Your task to perform on an android device: Open sound settings Image 0: 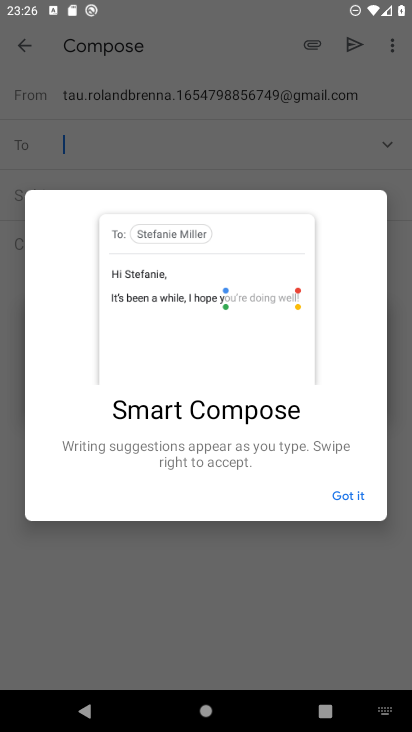
Step 0: press home button
Your task to perform on an android device: Open sound settings Image 1: 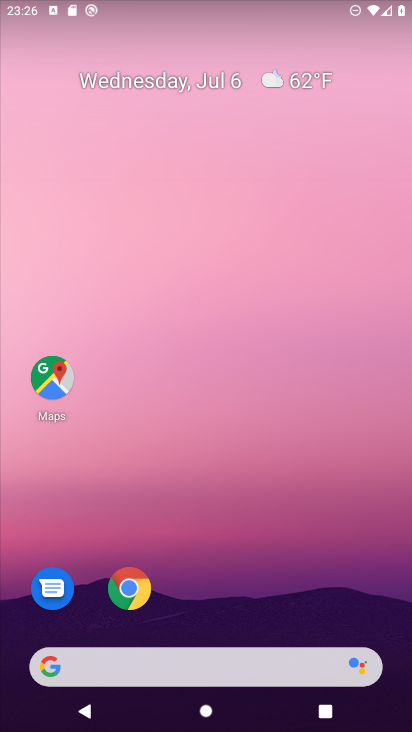
Step 1: drag from (370, 613) to (295, 198)
Your task to perform on an android device: Open sound settings Image 2: 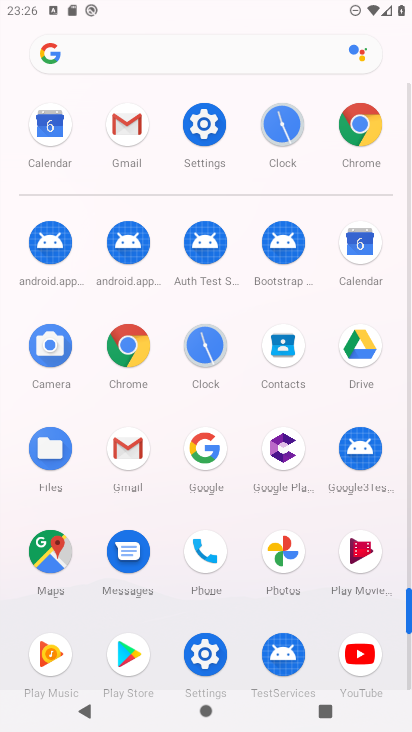
Step 2: click (203, 651)
Your task to perform on an android device: Open sound settings Image 3: 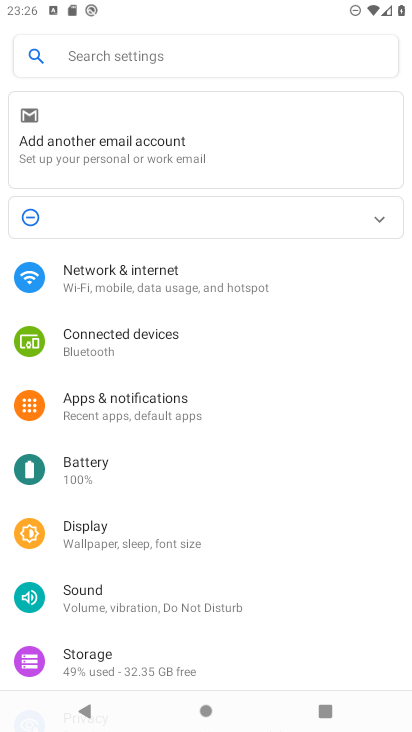
Step 3: click (100, 602)
Your task to perform on an android device: Open sound settings Image 4: 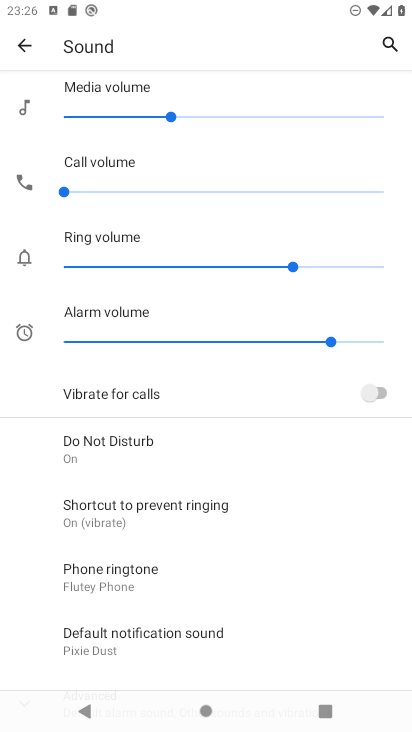
Step 4: drag from (270, 553) to (257, 228)
Your task to perform on an android device: Open sound settings Image 5: 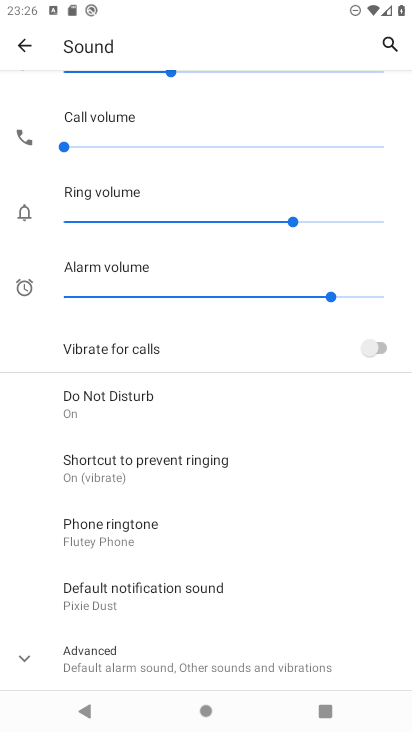
Step 5: click (33, 648)
Your task to perform on an android device: Open sound settings Image 6: 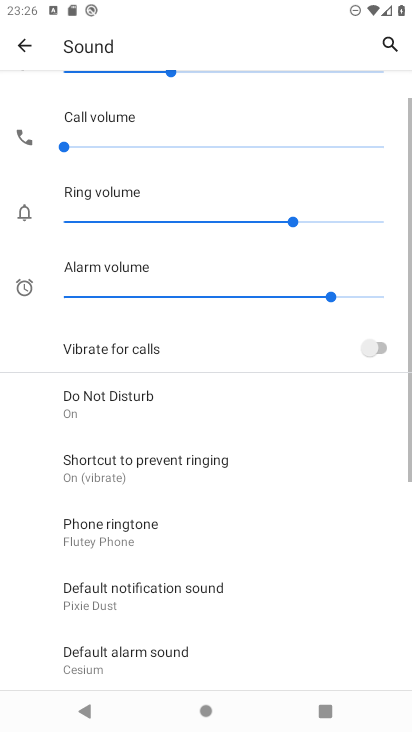
Step 6: task complete